Your task to perform on an android device: When is my next appointment? Image 0: 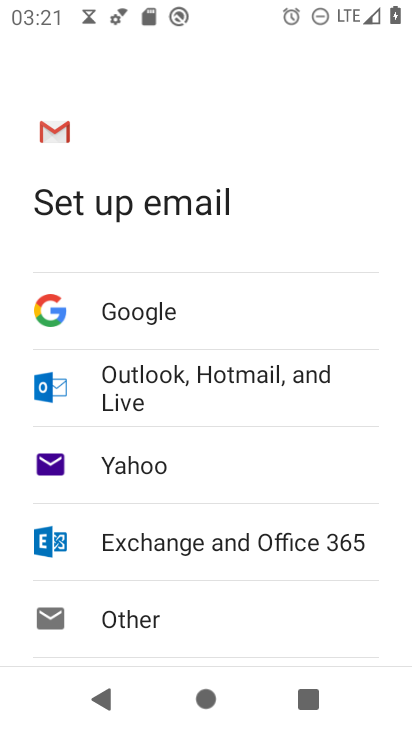
Step 0: press home button
Your task to perform on an android device: When is my next appointment? Image 1: 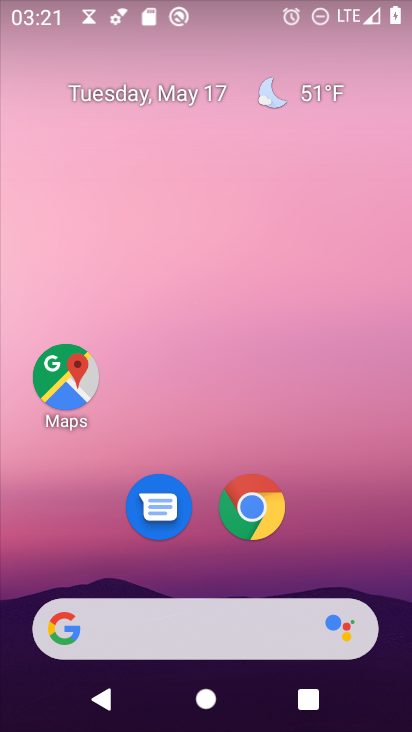
Step 1: drag from (205, 575) to (198, 18)
Your task to perform on an android device: When is my next appointment? Image 2: 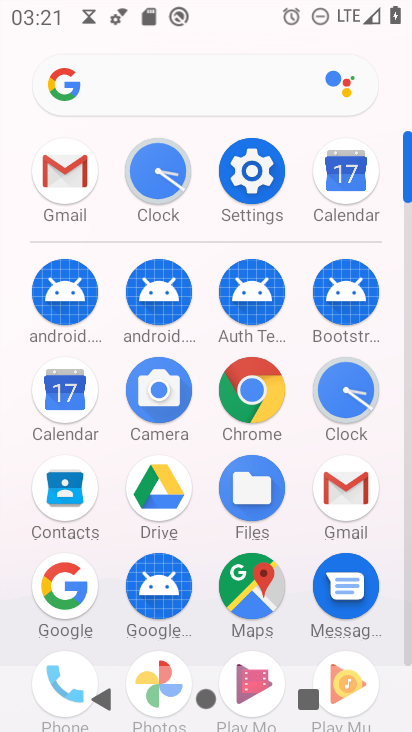
Step 2: click (50, 403)
Your task to perform on an android device: When is my next appointment? Image 3: 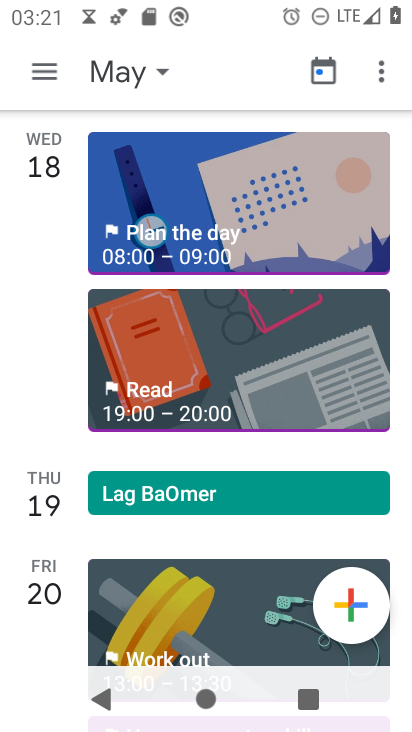
Step 3: click (141, 74)
Your task to perform on an android device: When is my next appointment? Image 4: 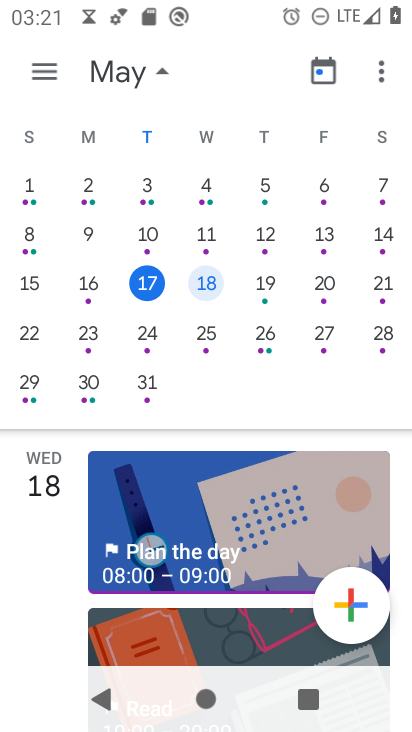
Step 4: click (150, 283)
Your task to perform on an android device: When is my next appointment? Image 5: 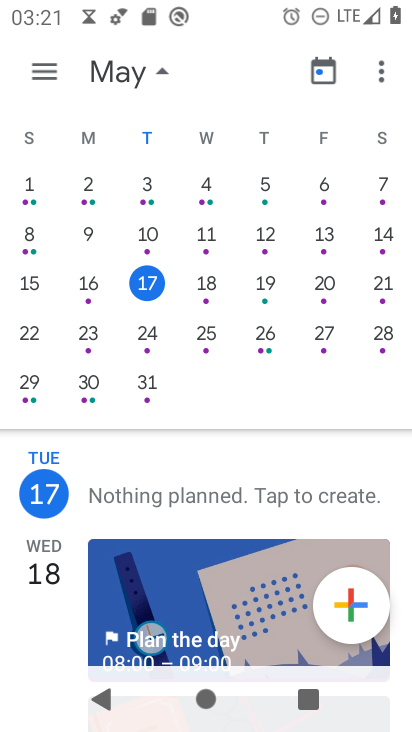
Step 5: task complete